Your task to perform on an android device: When is my next appointment? Image 0: 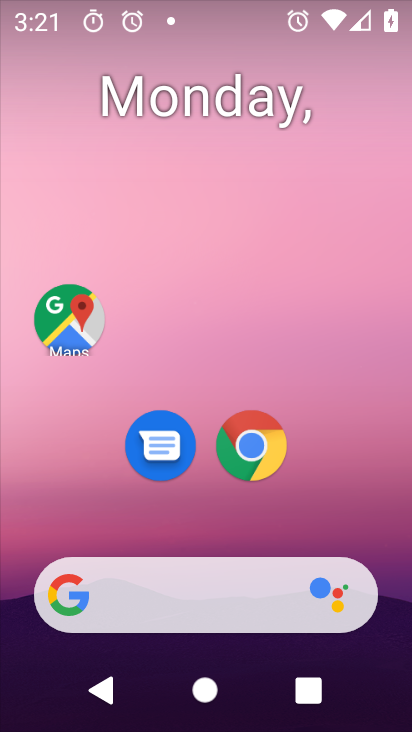
Step 0: drag from (208, 553) to (211, 132)
Your task to perform on an android device: When is my next appointment? Image 1: 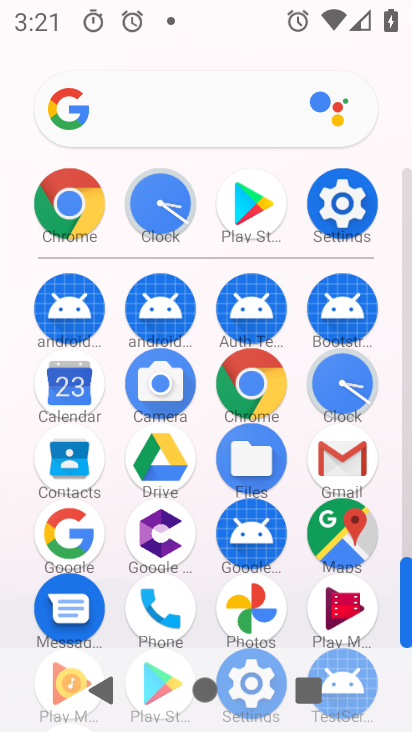
Step 1: click (85, 399)
Your task to perform on an android device: When is my next appointment? Image 2: 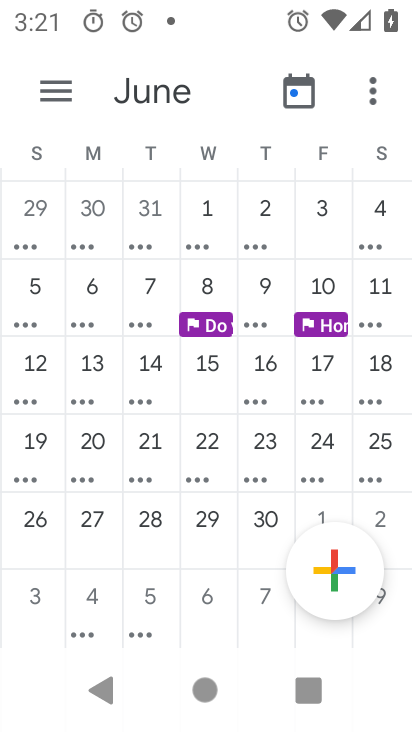
Step 2: click (51, 86)
Your task to perform on an android device: When is my next appointment? Image 3: 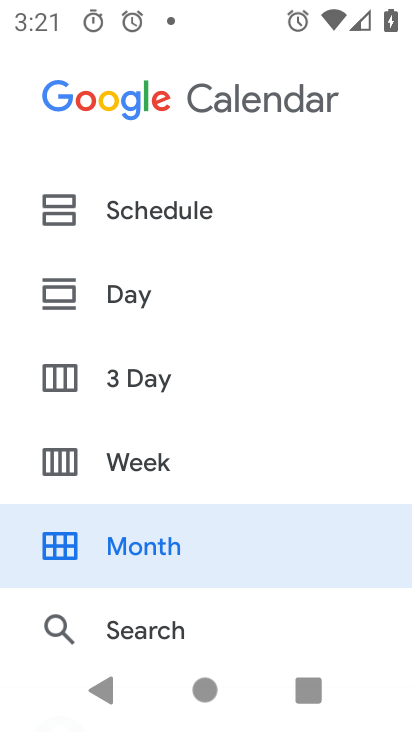
Step 3: click (117, 190)
Your task to perform on an android device: When is my next appointment? Image 4: 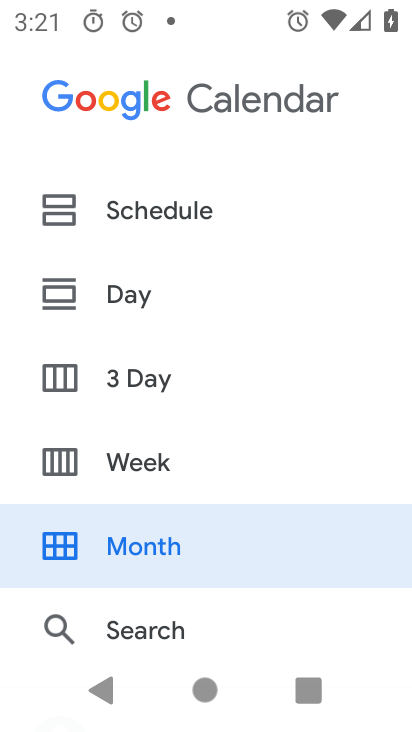
Step 4: click (146, 216)
Your task to perform on an android device: When is my next appointment? Image 5: 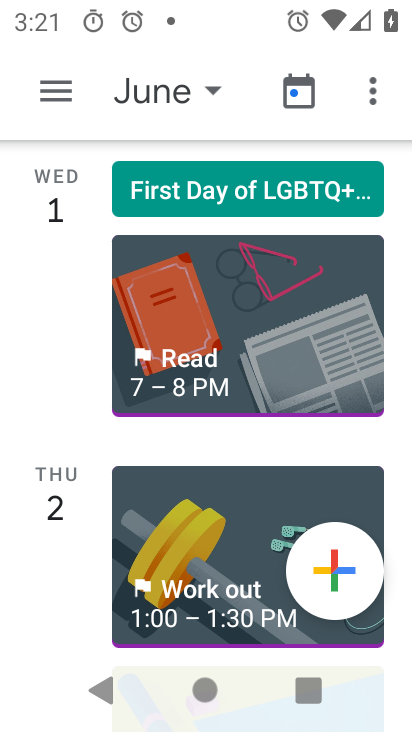
Step 5: click (184, 118)
Your task to perform on an android device: When is my next appointment? Image 6: 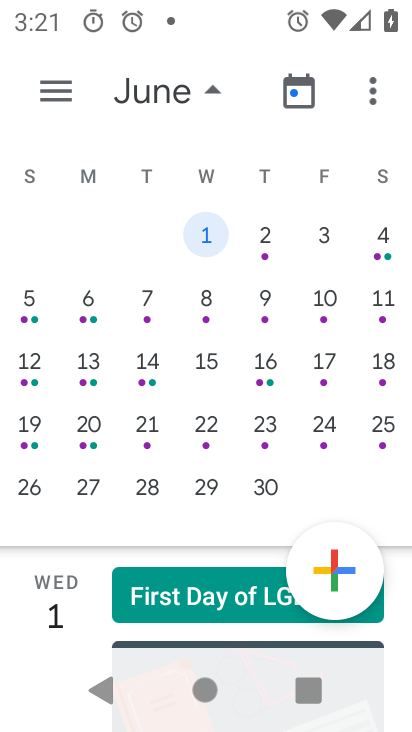
Step 6: drag from (70, 398) to (411, 371)
Your task to perform on an android device: When is my next appointment? Image 7: 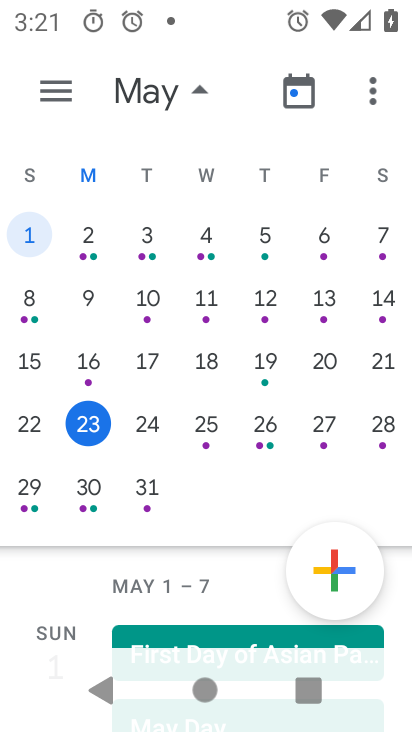
Step 7: click (95, 424)
Your task to perform on an android device: When is my next appointment? Image 8: 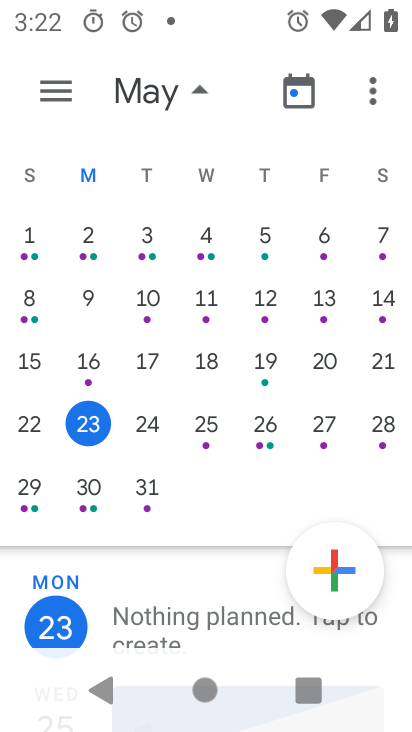
Step 8: click (189, 110)
Your task to perform on an android device: When is my next appointment? Image 9: 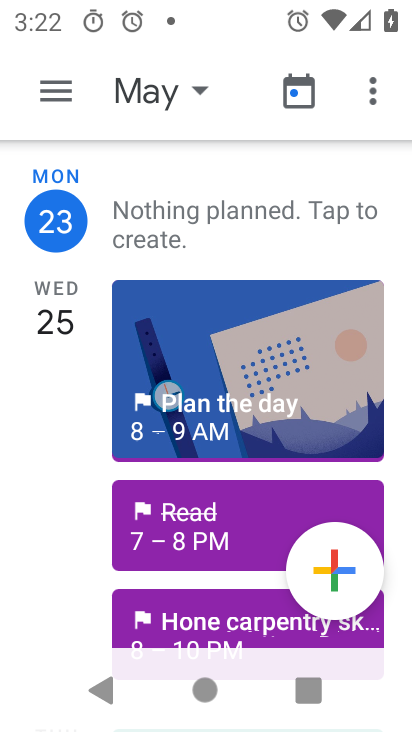
Step 9: task complete